Your task to perform on an android device: Go to settings Image 0: 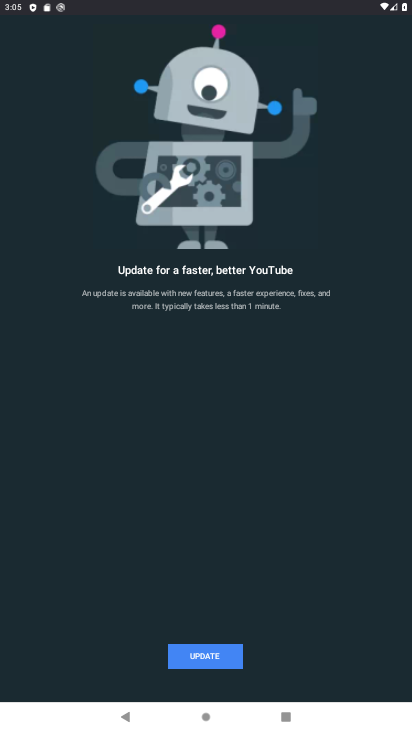
Step 0: press home button
Your task to perform on an android device: Go to settings Image 1: 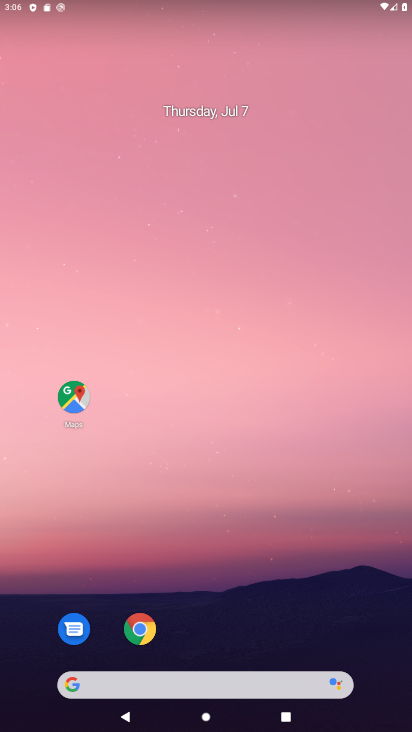
Step 1: drag from (64, 577) to (162, 218)
Your task to perform on an android device: Go to settings Image 2: 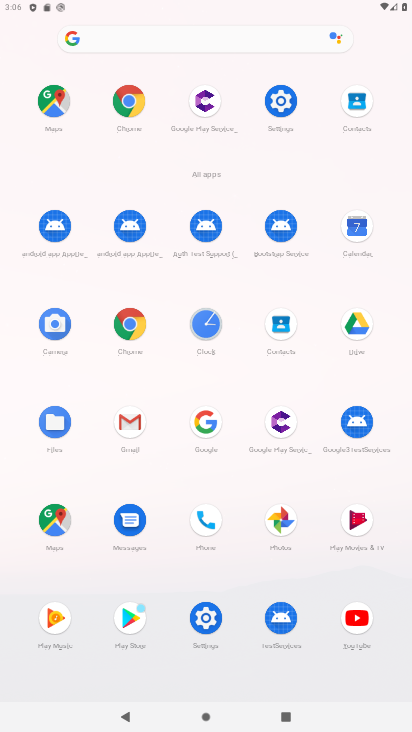
Step 2: click (200, 612)
Your task to perform on an android device: Go to settings Image 3: 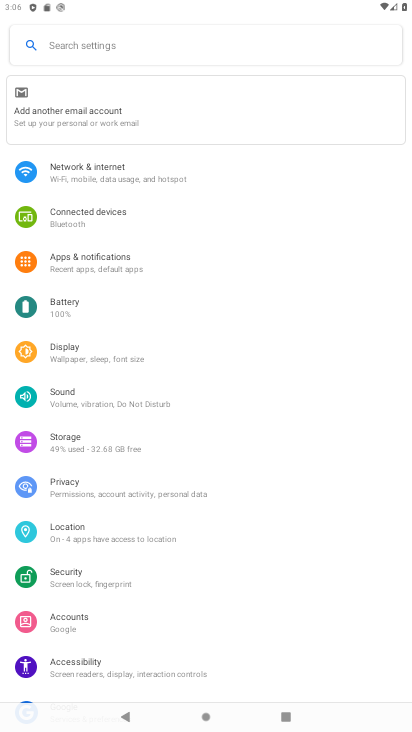
Step 3: task complete